Your task to perform on an android device: Open Android settings Image 0: 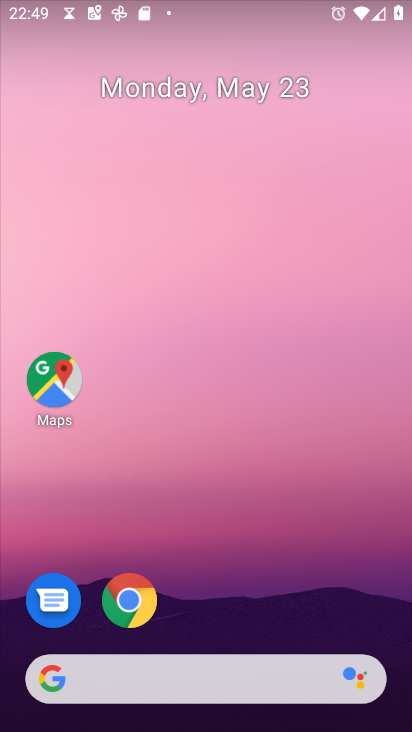
Step 0: drag from (219, 727) to (224, 28)
Your task to perform on an android device: Open Android settings Image 1: 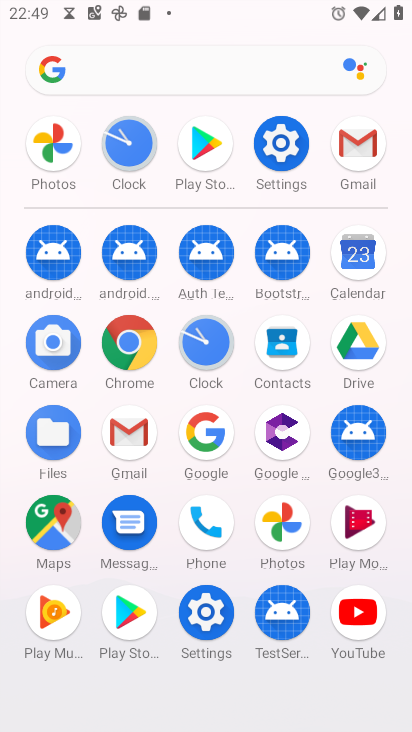
Step 1: click (285, 135)
Your task to perform on an android device: Open Android settings Image 2: 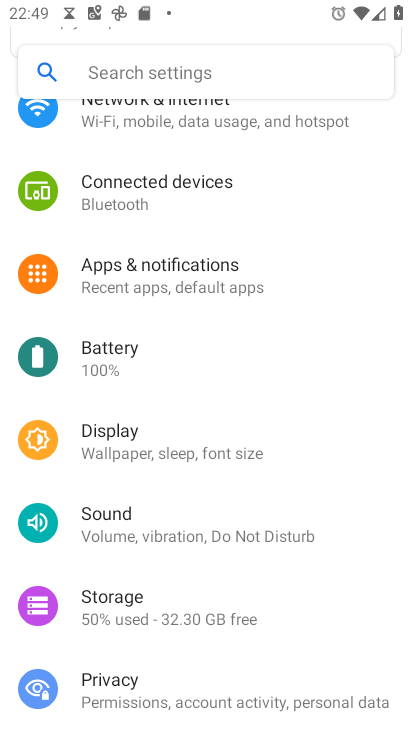
Step 2: task complete